Your task to perform on an android device: Go to privacy settings Image 0: 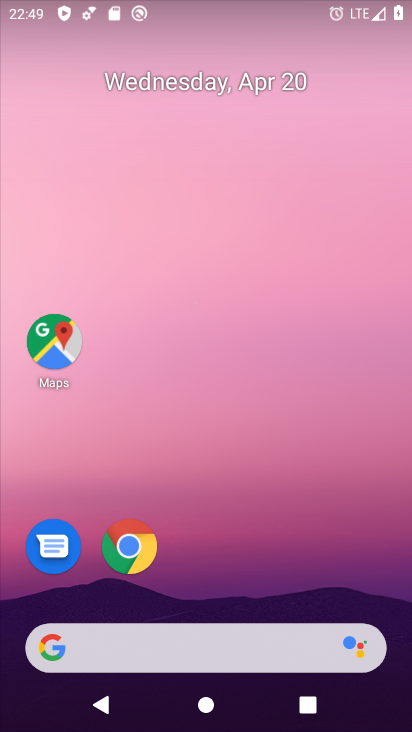
Step 0: click (145, 551)
Your task to perform on an android device: Go to privacy settings Image 1: 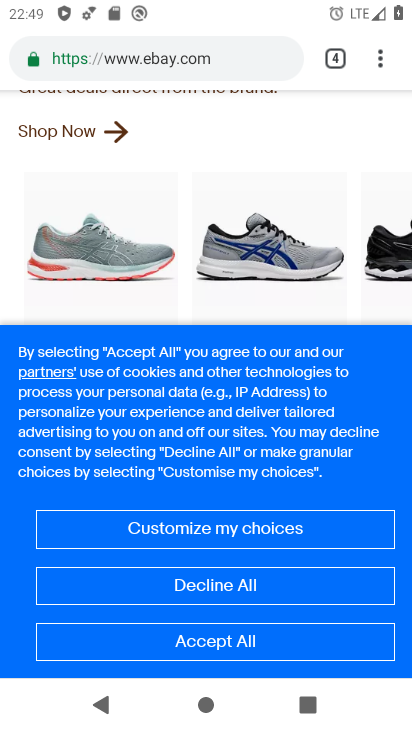
Step 1: drag from (378, 65) to (193, 569)
Your task to perform on an android device: Go to privacy settings Image 2: 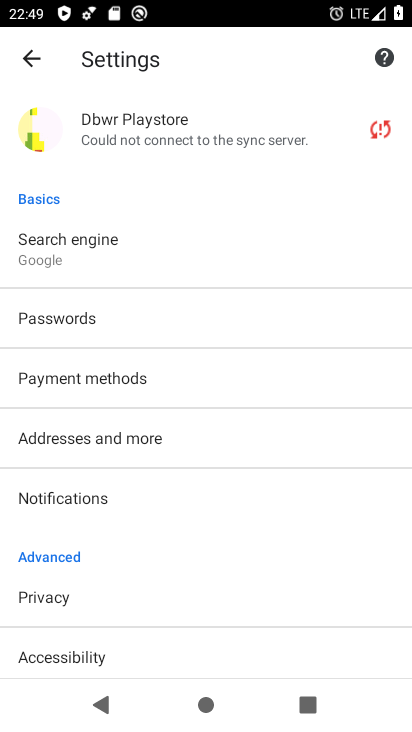
Step 2: click (32, 596)
Your task to perform on an android device: Go to privacy settings Image 3: 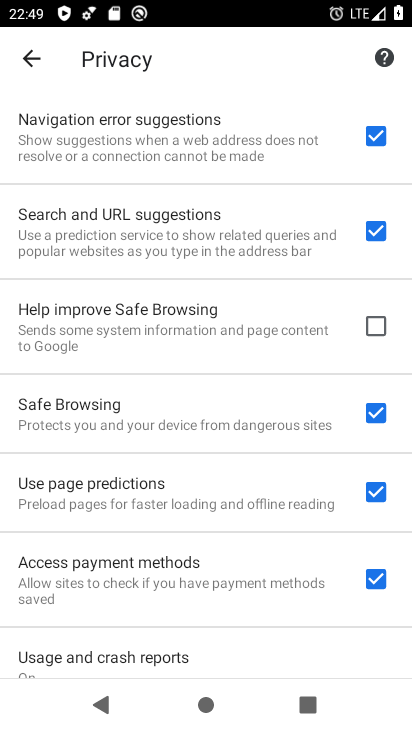
Step 3: task complete